Your task to perform on an android device: View the shopping cart on costco. Add "duracell triple a" to the cart on costco, then select checkout. Image 0: 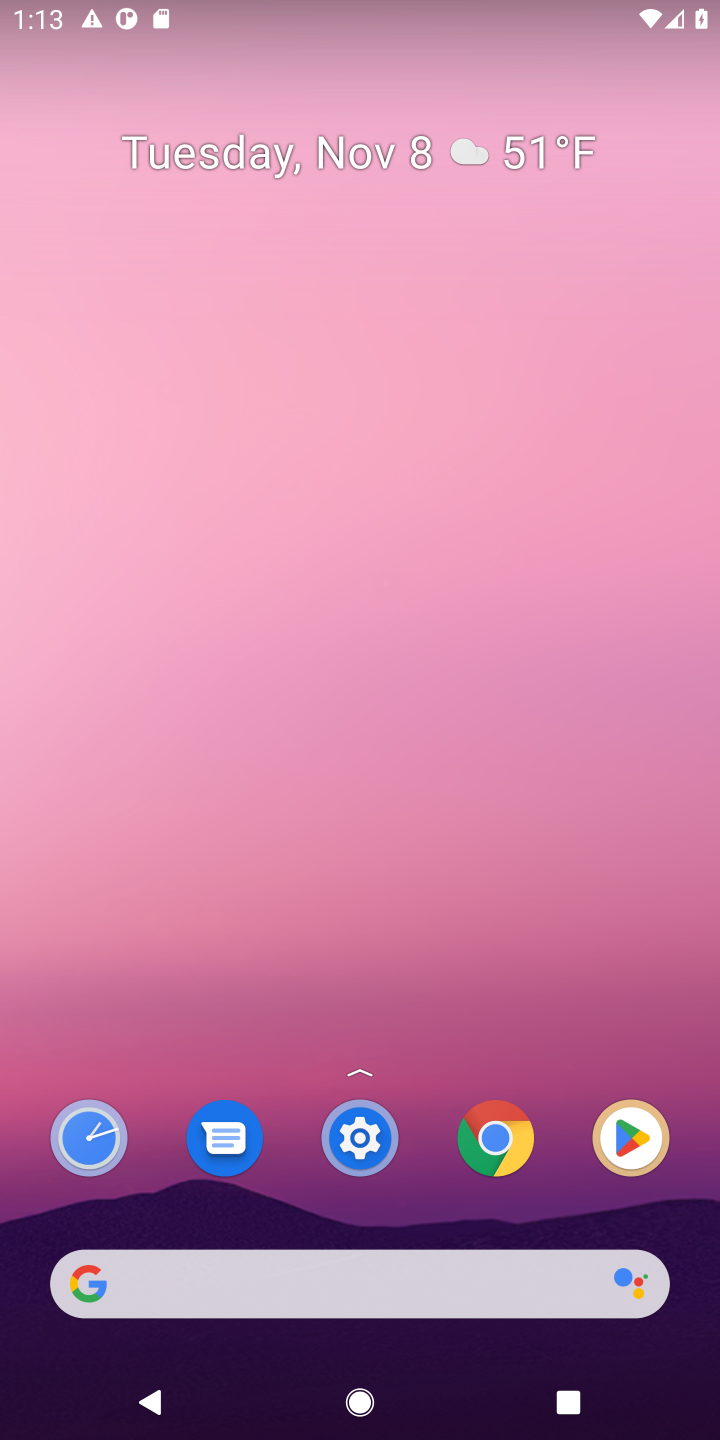
Step 0: click (505, 1276)
Your task to perform on an android device: View the shopping cart on costco. Add "duracell triple a" to the cart on costco, then select checkout. Image 1: 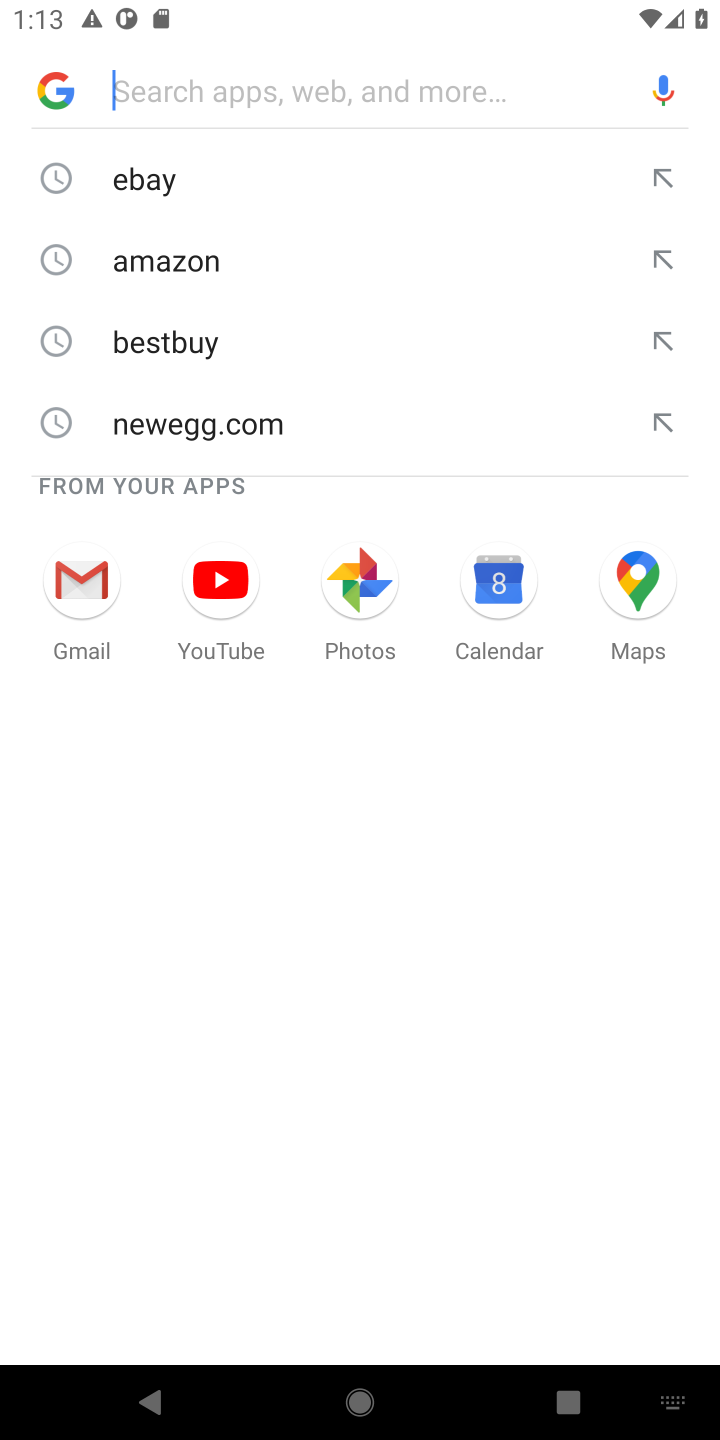
Step 1: type "costco"
Your task to perform on an android device: View the shopping cart on costco. Add "duracell triple a" to the cart on costco, then select checkout. Image 2: 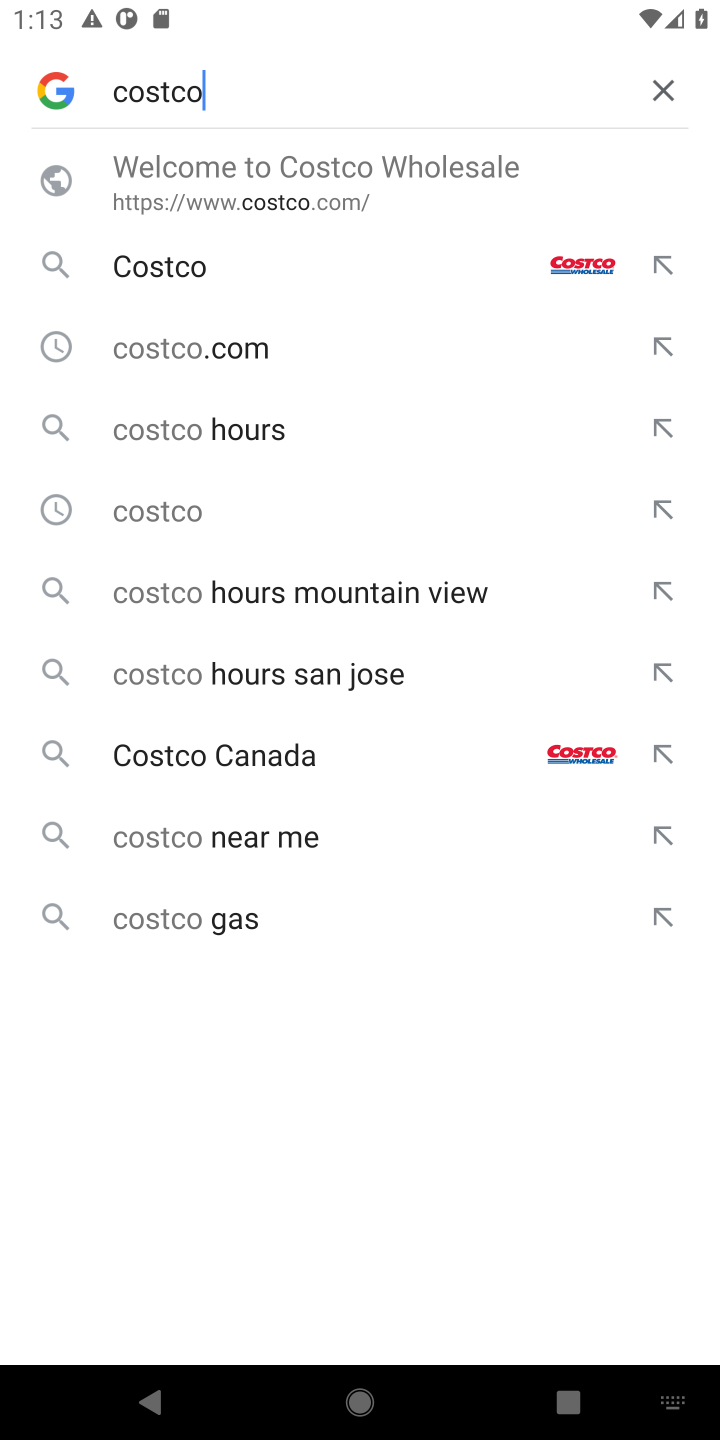
Step 2: click (369, 218)
Your task to perform on an android device: View the shopping cart on costco. Add "duracell triple a" to the cart on costco, then select checkout. Image 3: 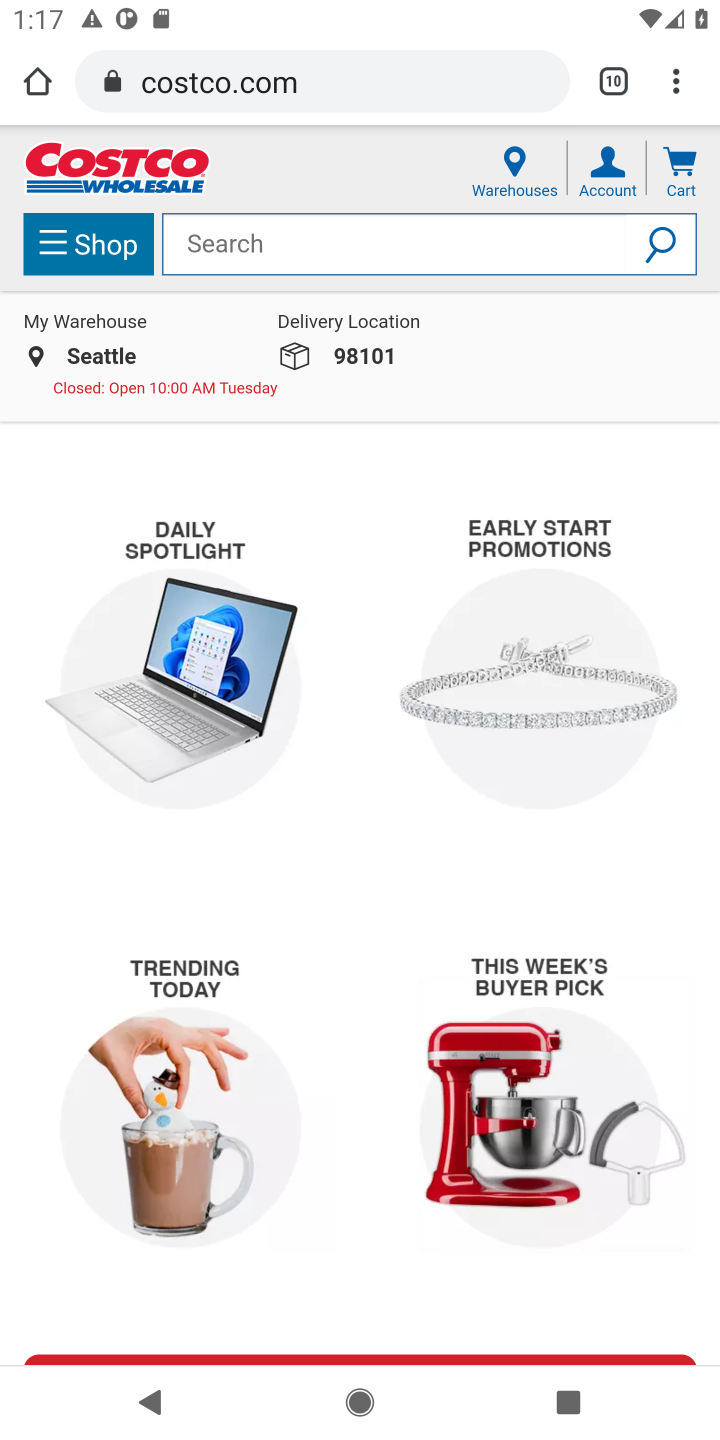
Step 3: click (321, 252)
Your task to perform on an android device: View the shopping cart on costco. Add "duracell triple a" to the cart on costco, then select checkout. Image 4: 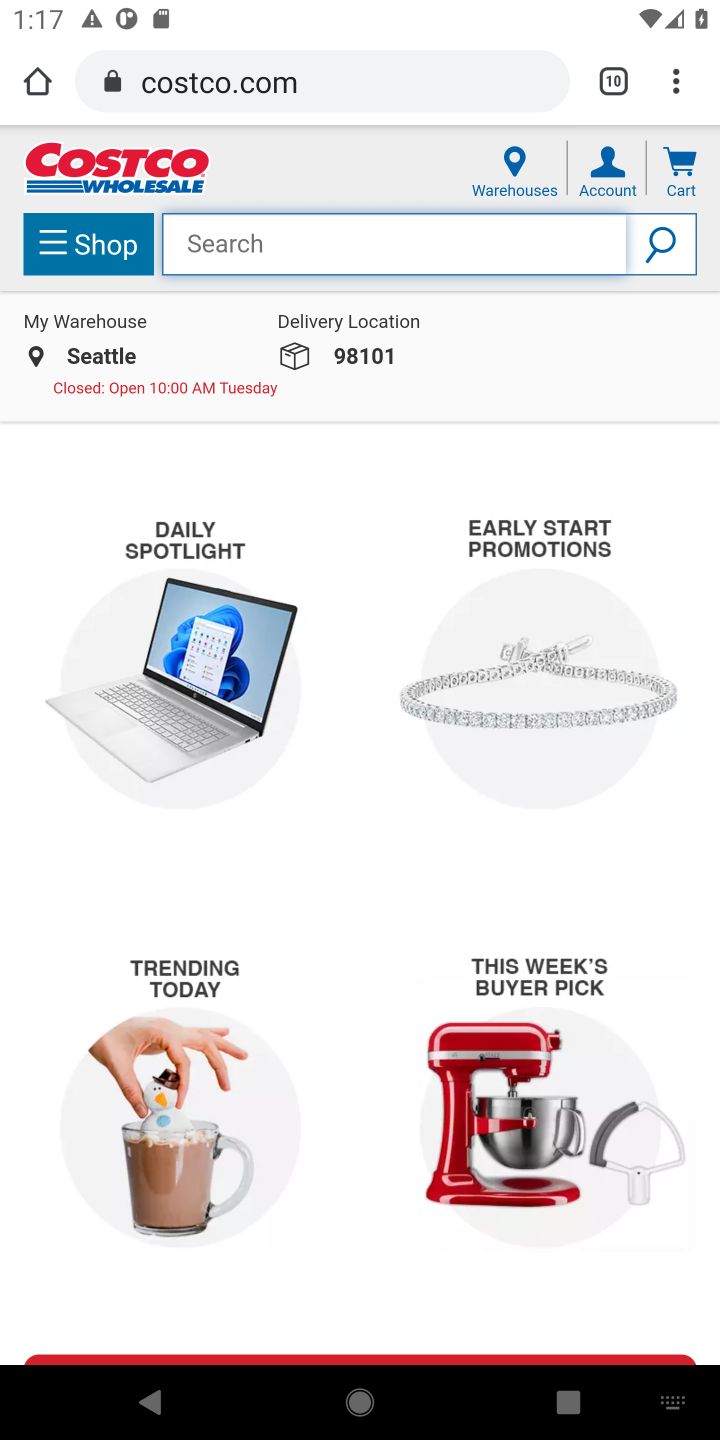
Step 4: task complete